Your task to perform on an android device: turn notification dots on Image 0: 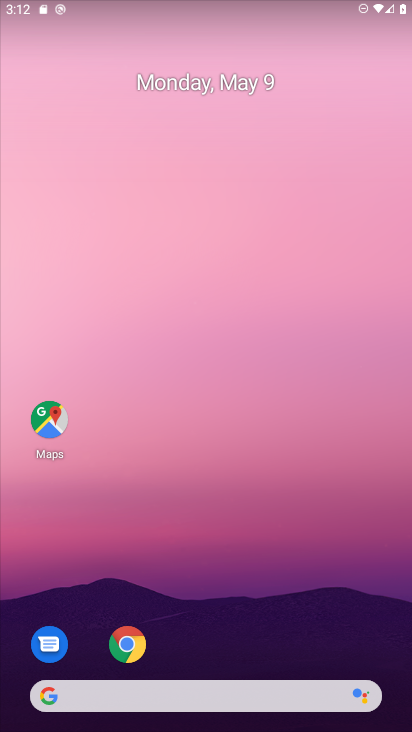
Step 0: drag from (227, 624) to (297, 17)
Your task to perform on an android device: turn notification dots on Image 1: 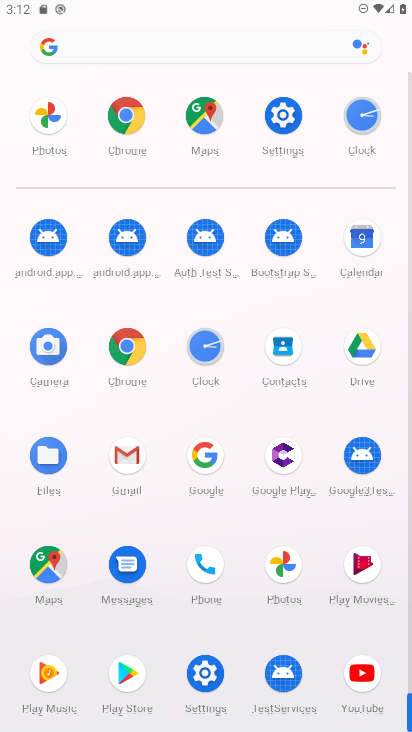
Step 1: click (292, 128)
Your task to perform on an android device: turn notification dots on Image 2: 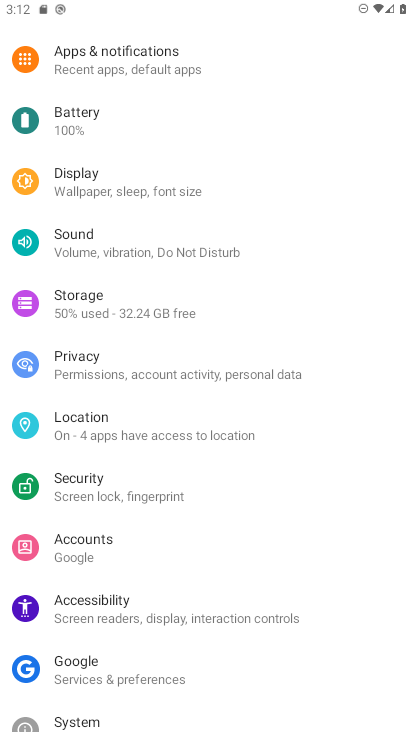
Step 2: click (128, 61)
Your task to perform on an android device: turn notification dots on Image 3: 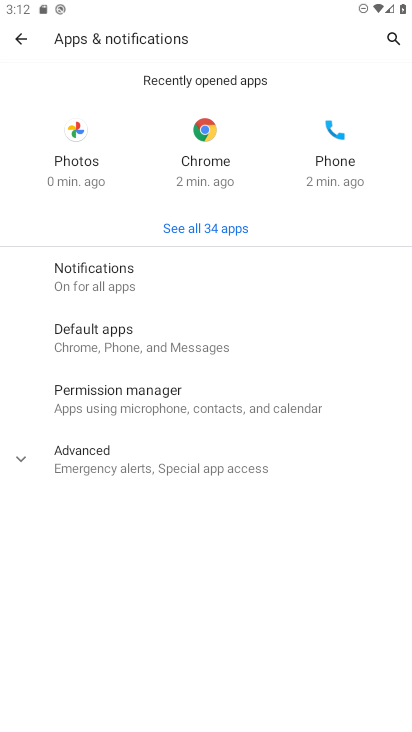
Step 3: click (68, 268)
Your task to perform on an android device: turn notification dots on Image 4: 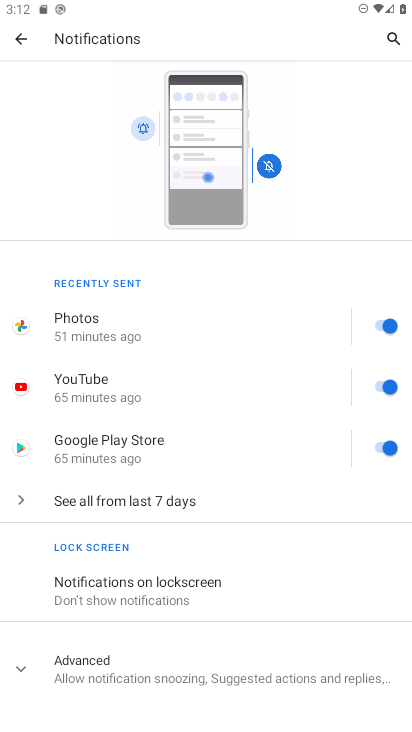
Step 4: drag from (135, 612) to (204, 320)
Your task to perform on an android device: turn notification dots on Image 5: 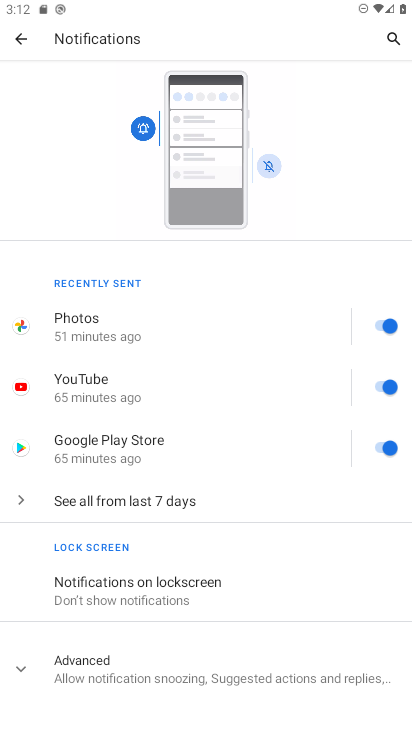
Step 5: click (79, 676)
Your task to perform on an android device: turn notification dots on Image 6: 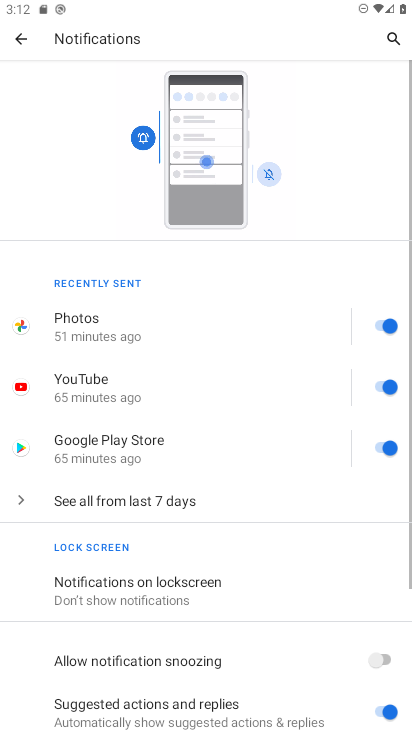
Step 6: task complete